Your task to perform on an android device: Open the web browser Image 0: 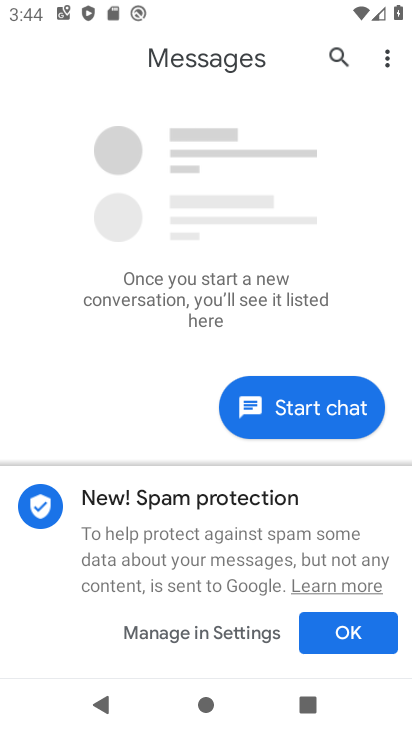
Step 0: press home button
Your task to perform on an android device: Open the web browser Image 1: 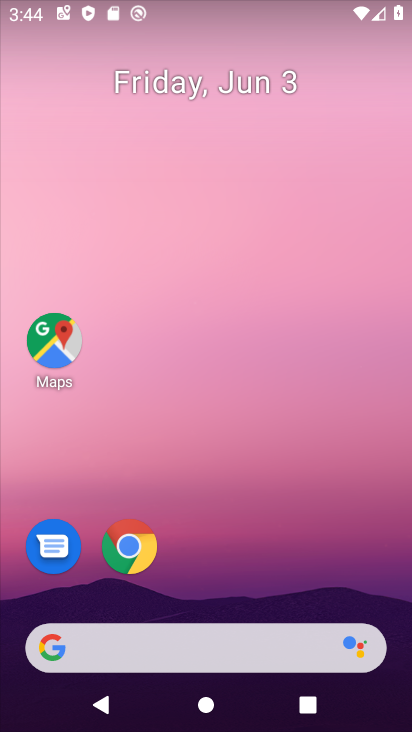
Step 1: click (260, 646)
Your task to perform on an android device: Open the web browser Image 2: 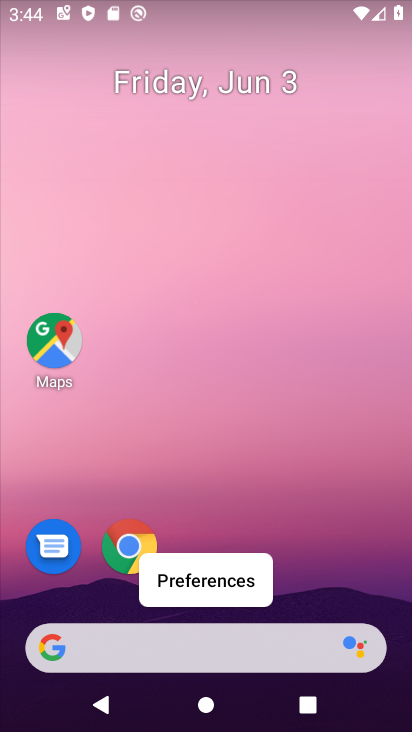
Step 2: click (241, 640)
Your task to perform on an android device: Open the web browser Image 3: 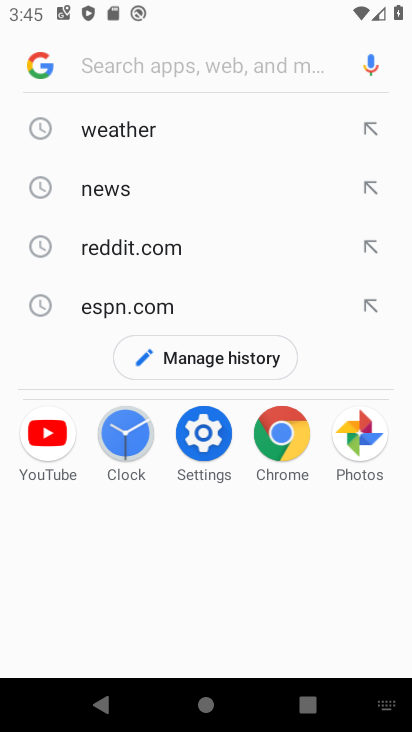
Step 3: task complete